Your task to perform on an android device: read, delete, or share a saved page in the chrome app Image 0: 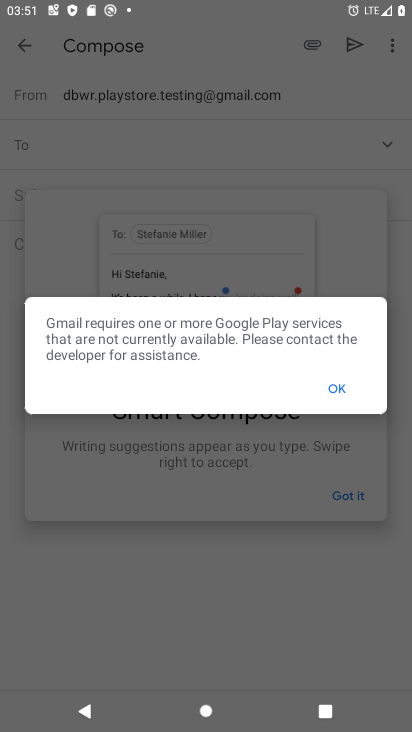
Step 0: press home button
Your task to perform on an android device: read, delete, or share a saved page in the chrome app Image 1: 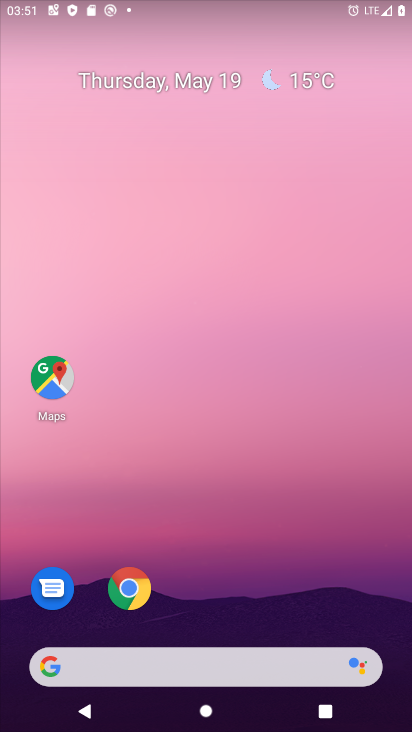
Step 1: click (132, 582)
Your task to perform on an android device: read, delete, or share a saved page in the chrome app Image 2: 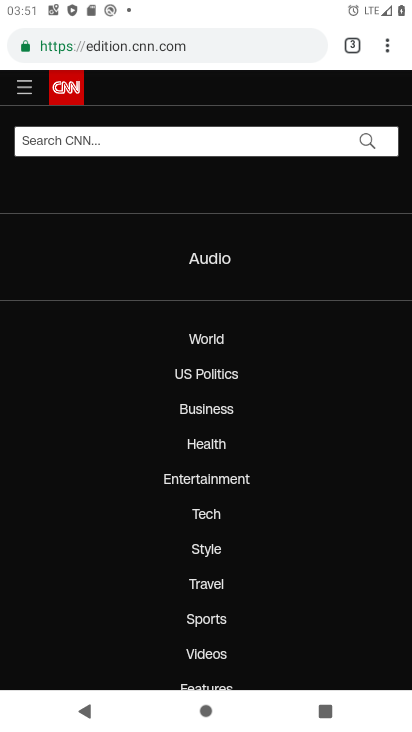
Step 2: task complete